Your task to perform on an android device: Open my contact list Image 0: 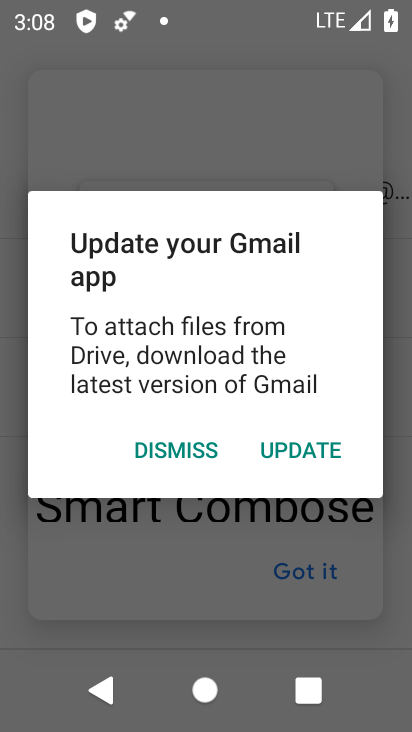
Step 0: press home button
Your task to perform on an android device: Open my contact list Image 1: 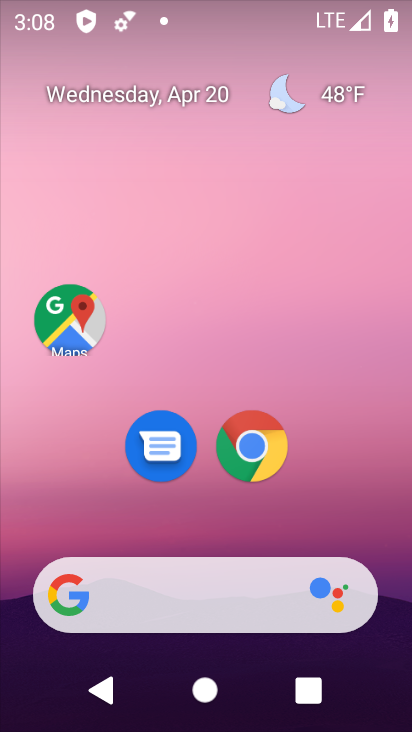
Step 1: drag from (308, 526) to (279, 7)
Your task to perform on an android device: Open my contact list Image 2: 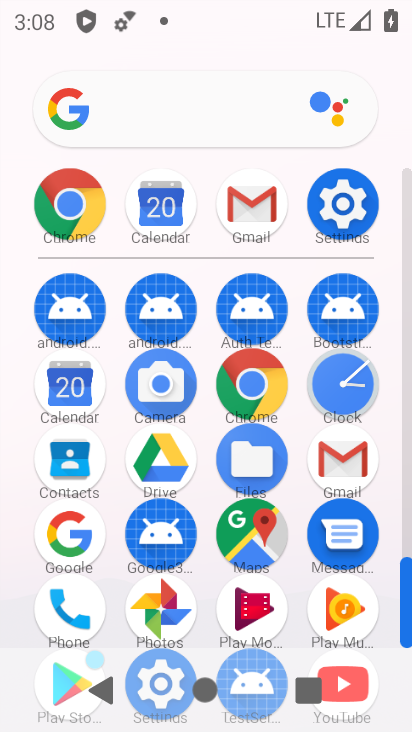
Step 2: drag from (110, 560) to (132, 383)
Your task to perform on an android device: Open my contact list Image 3: 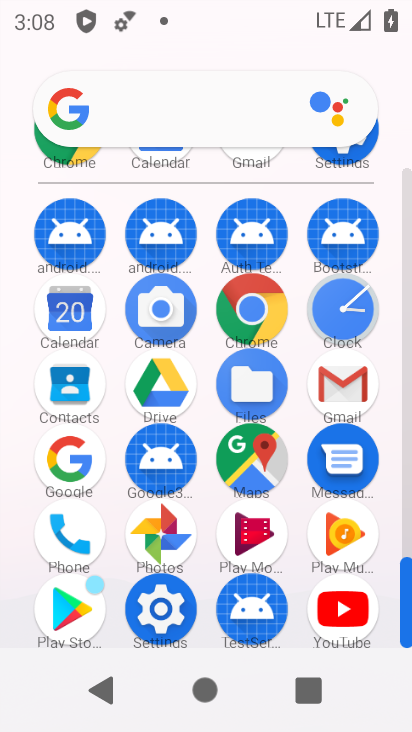
Step 3: click (70, 385)
Your task to perform on an android device: Open my contact list Image 4: 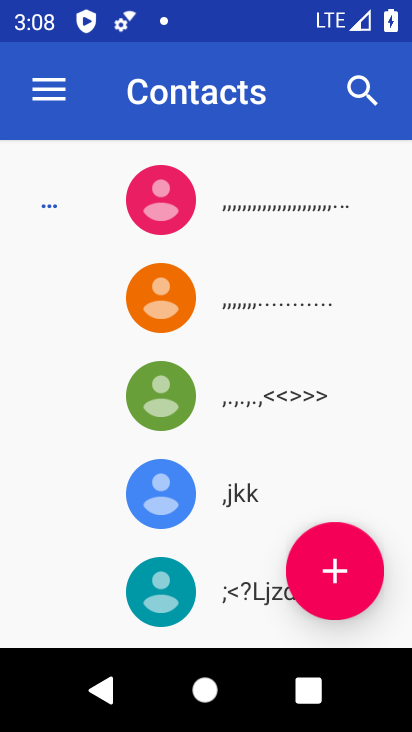
Step 4: task complete